Your task to perform on an android device: open a new tab in the chrome app Image 0: 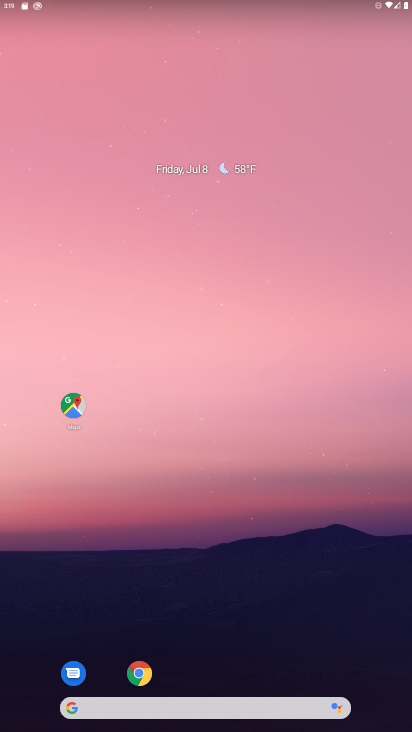
Step 0: click (141, 673)
Your task to perform on an android device: open a new tab in the chrome app Image 1: 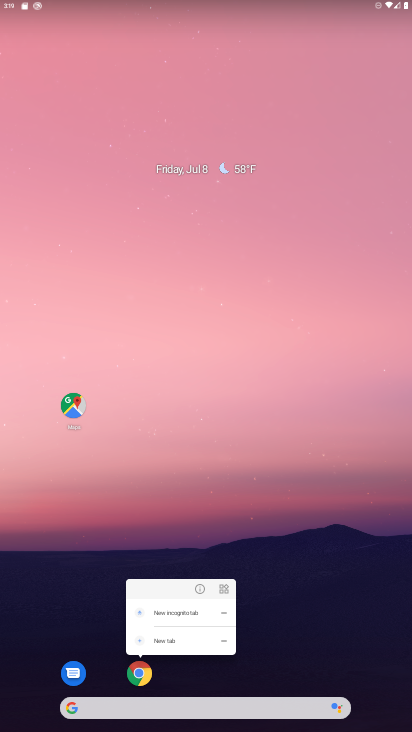
Step 1: click (141, 673)
Your task to perform on an android device: open a new tab in the chrome app Image 2: 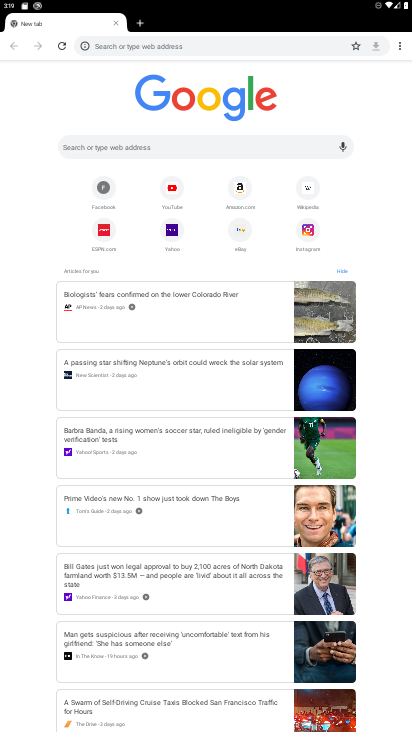
Step 2: click (402, 46)
Your task to perform on an android device: open a new tab in the chrome app Image 3: 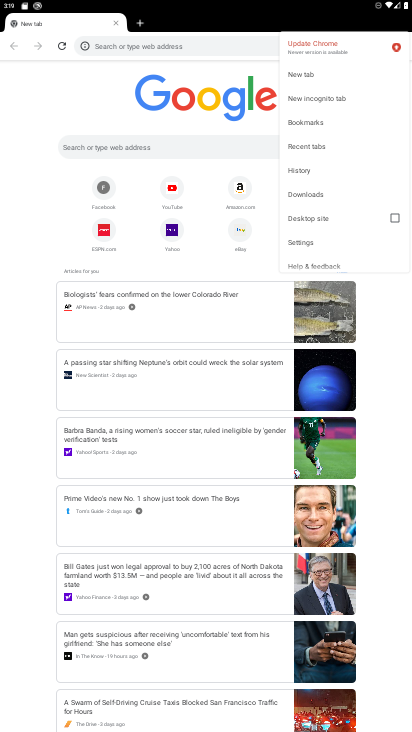
Step 3: click (308, 68)
Your task to perform on an android device: open a new tab in the chrome app Image 4: 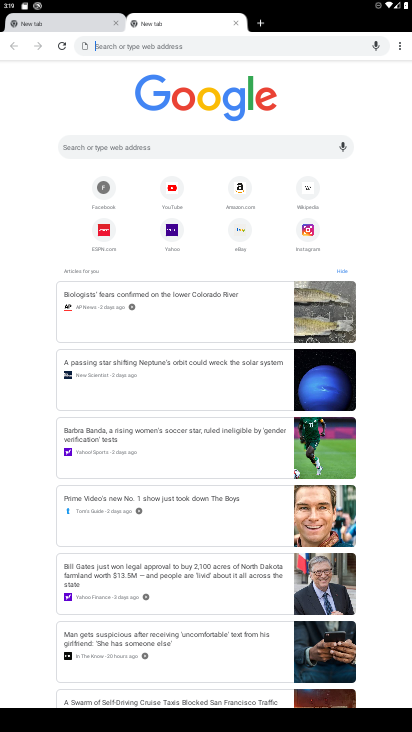
Step 4: task complete